Your task to perform on an android device: Do I have any events tomorrow? Image 0: 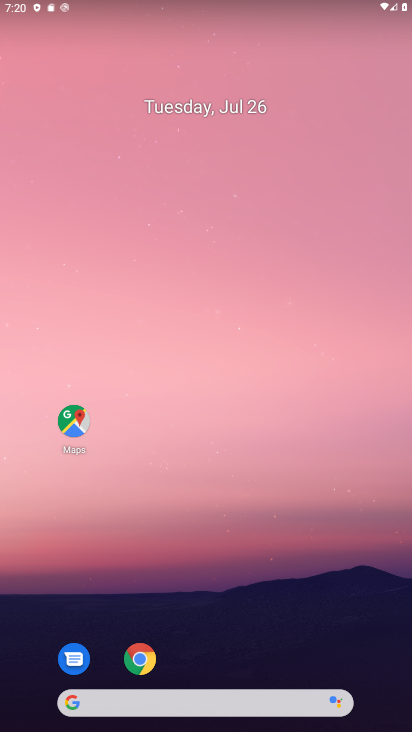
Step 0: drag from (197, 681) to (219, 68)
Your task to perform on an android device: Do I have any events tomorrow? Image 1: 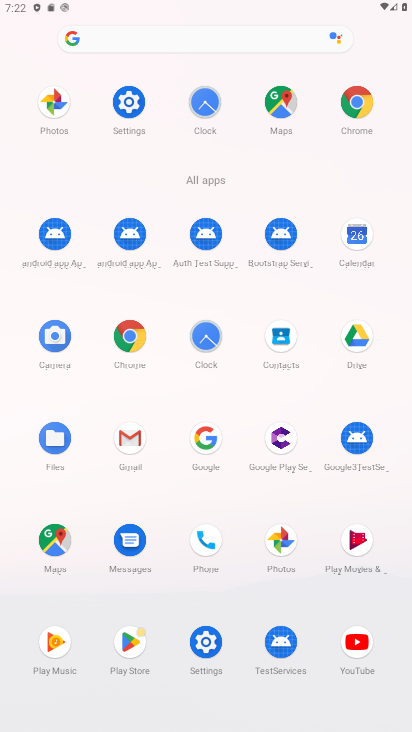
Step 1: click (349, 227)
Your task to perform on an android device: Do I have any events tomorrow? Image 2: 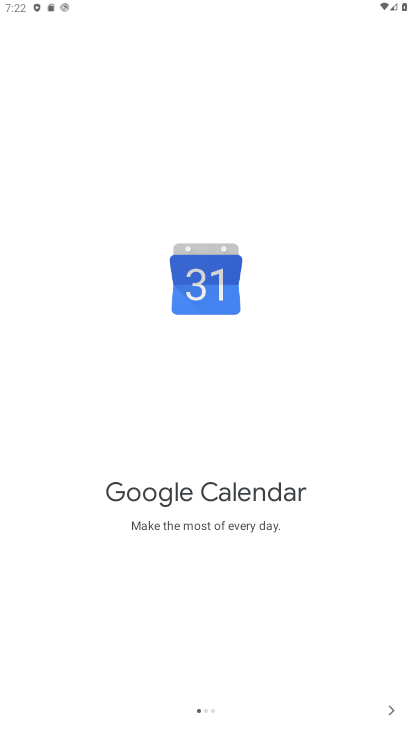
Step 2: click (400, 714)
Your task to perform on an android device: Do I have any events tomorrow? Image 3: 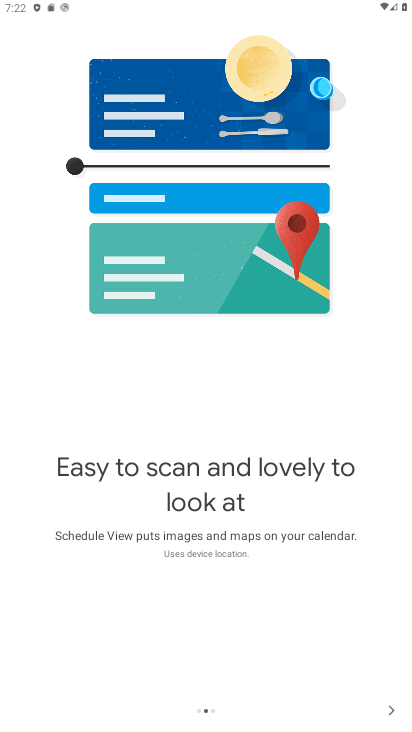
Step 3: click (400, 714)
Your task to perform on an android device: Do I have any events tomorrow? Image 4: 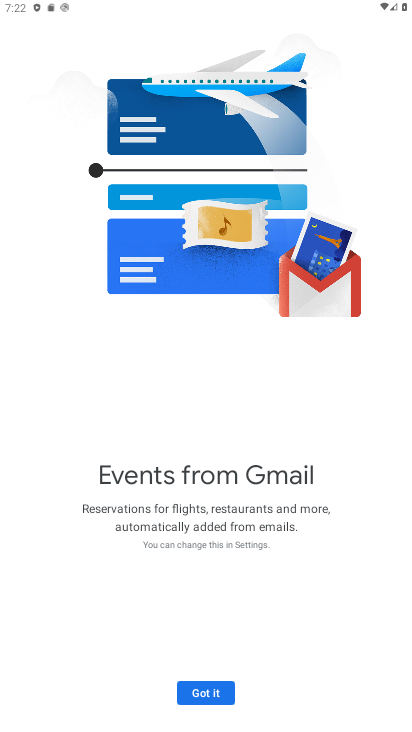
Step 4: click (192, 672)
Your task to perform on an android device: Do I have any events tomorrow? Image 5: 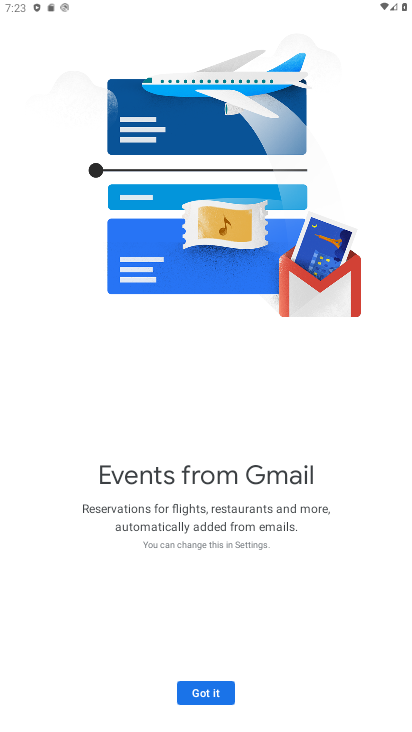
Step 5: click (192, 672)
Your task to perform on an android device: Do I have any events tomorrow? Image 6: 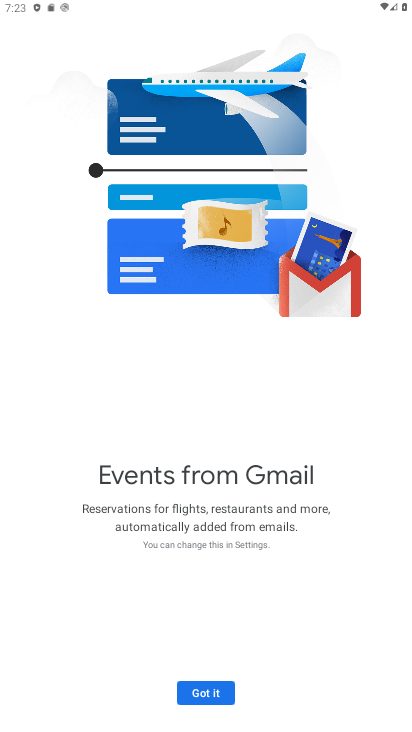
Step 6: click (217, 699)
Your task to perform on an android device: Do I have any events tomorrow? Image 7: 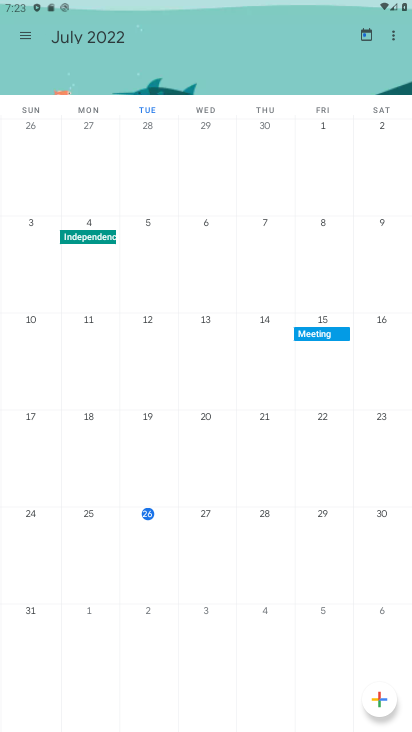
Step 7: click (206, 517)
Your task to perform on an android device: Do I have any events tomorrow? Image 8: 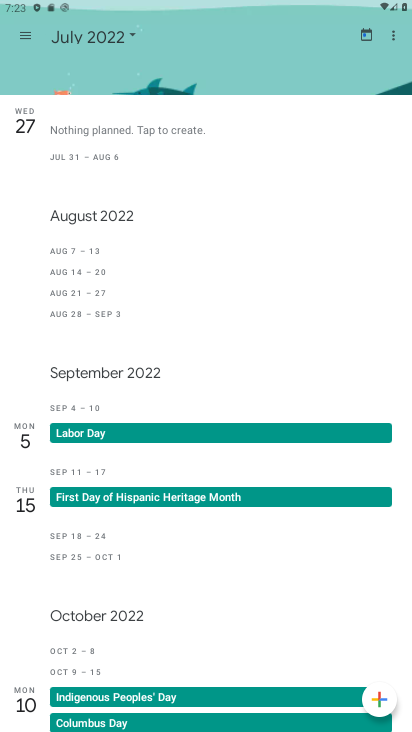
Step 8: task complete